Your task to perform on an android device: Search for Mexican restaurants on Maps Image 0: 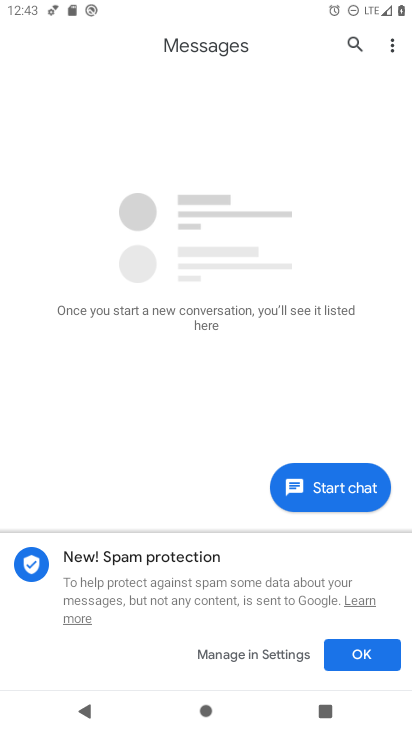
Step 0: press home button
Your task to perform on an android device: Search for Mexican restaurants on Maps Image 1: 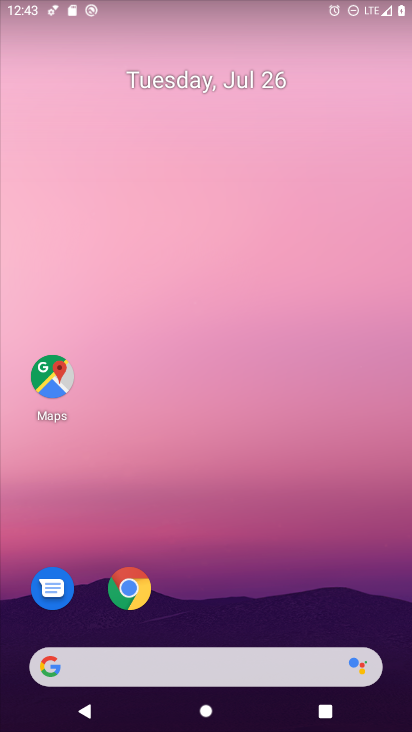
Step 1: drag from (215, 622) to (186, 136)
Your task to perform on an android device: Search for Mexican restaurants on Maps Image 2: 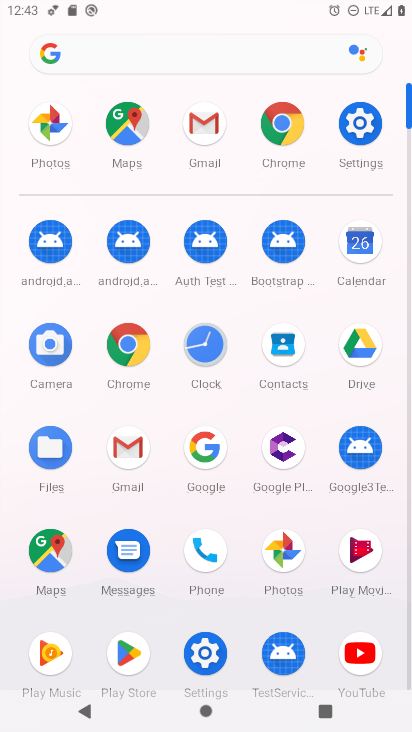
Step 2: click (124, 125)
Your task to perform on an android device: Search for Mexican restaurants on Maps Image 3: 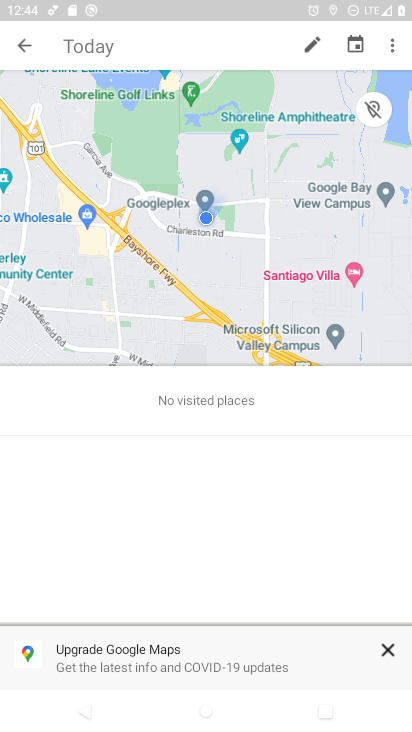
Step 3: click (23, 48)
Your task to perform on an android device: Search for Mexican restaurants on Maps Image 4: 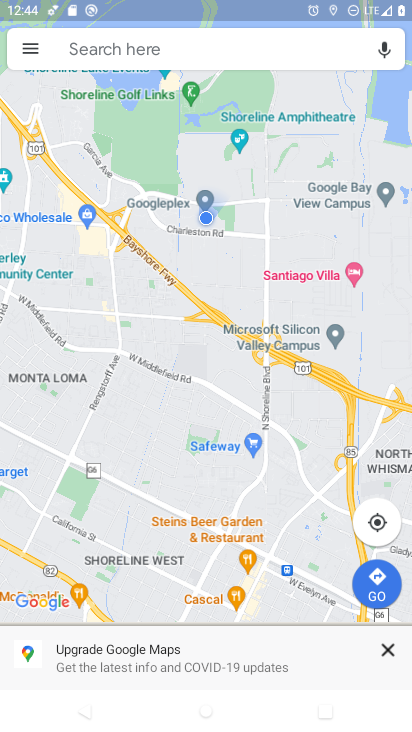
Step 4: click (95, 35)
Your task to perform on an android device: Search for Mexican restaurants on Maps Image 5: 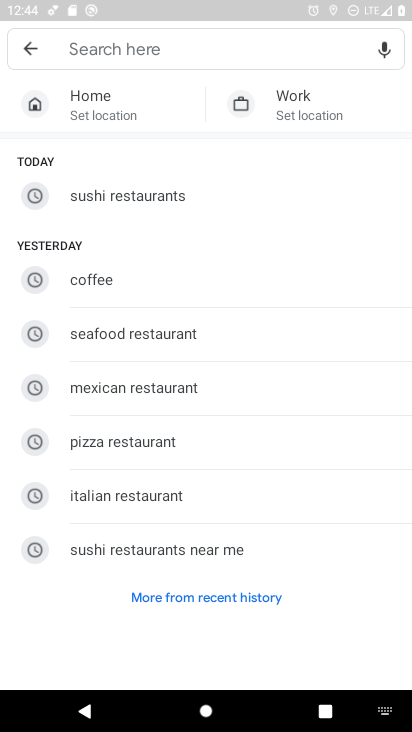
Step 5: click (317, 382)
Your task to perform on an android device: Search for Mexican restaurants on Maps Image 6: 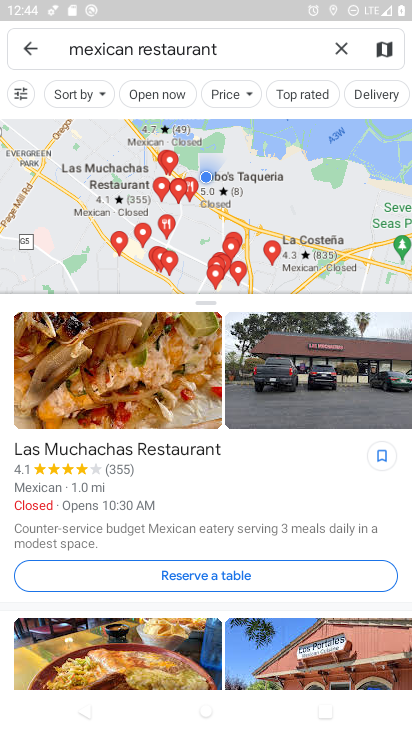
Step 6: task complete